Your task to perform on an android device: allow notifications from all sites in the chrome app Image 0: 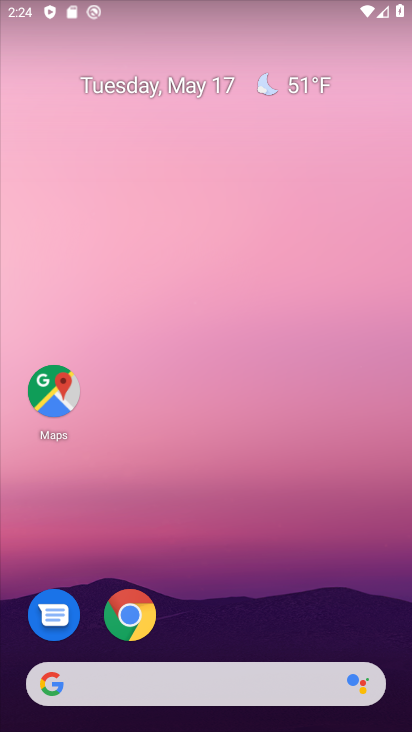
Step 0: click (127, 608)
Your task to perform on an android device: allow notifications from all sites in the chrome app Image 1: 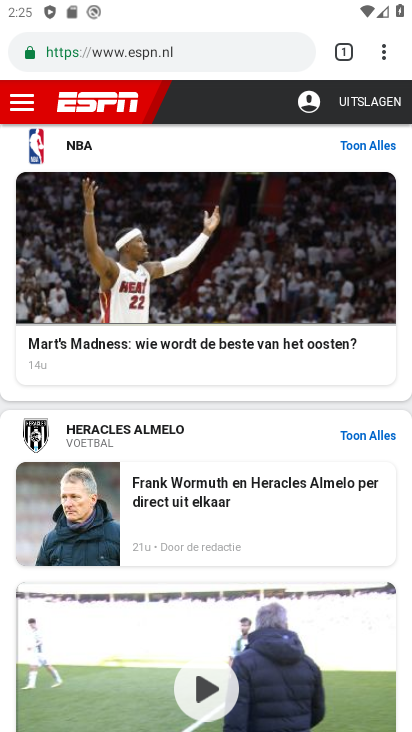
Step 1: click (388, 46)
Your task to perform on an android device: allow notifications from all sites in the chrome app Image 2: 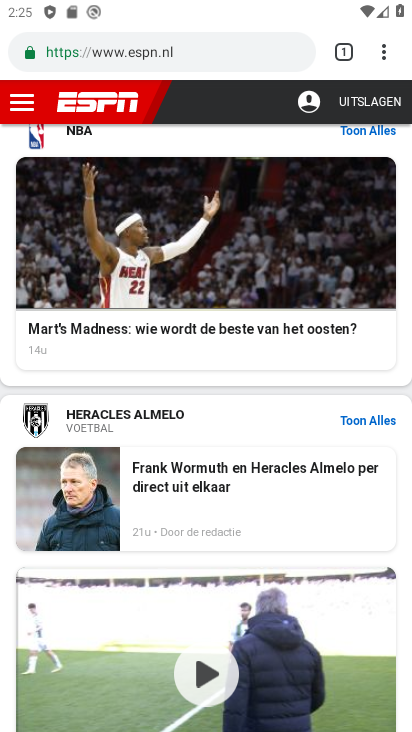
Step 2: click (382, 43)
Your task to perform on an android device: allow notifications from all sites in the chrome app Image 3: 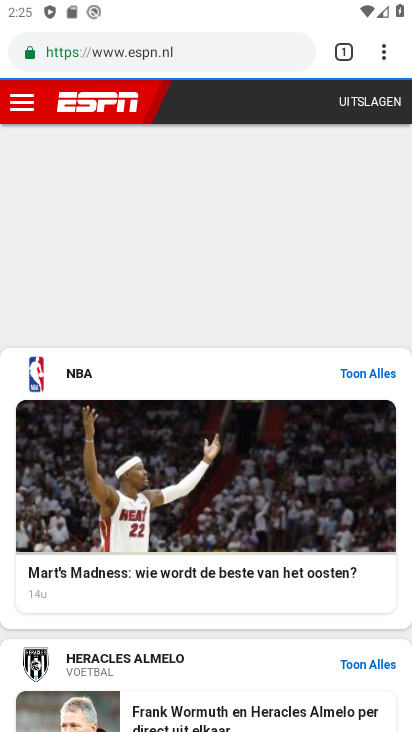
Step 3: click (383, 49)
Your task to perform on an android device: allow notifications from all sites in the chrome app Image 4: 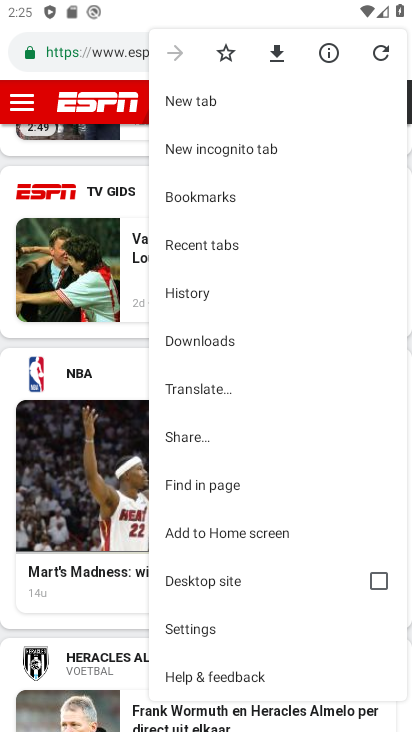
Step 4: click (219, 625)
Your task to perform on an android device: allow notifications from all sites in the chrome app Image 5: 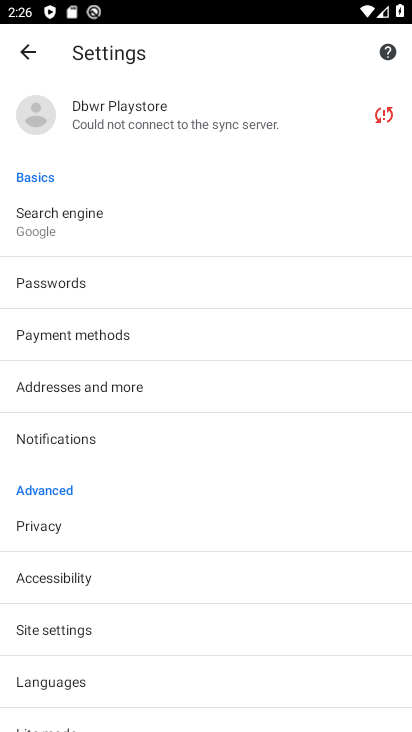
Step 5: click (103, 626)
Your task to perform on an android device: allow notifications from all sites in the chrome app Image 6: 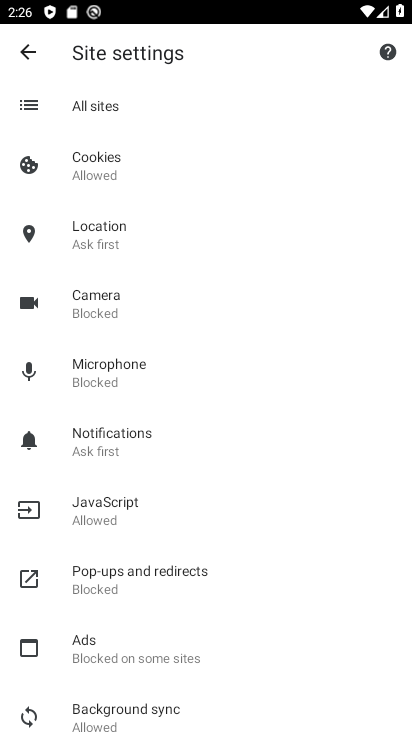
Step 6: click (120, 109)
Your task to perform on an android device: allow notifications from all sites in the chrome app Image 7: 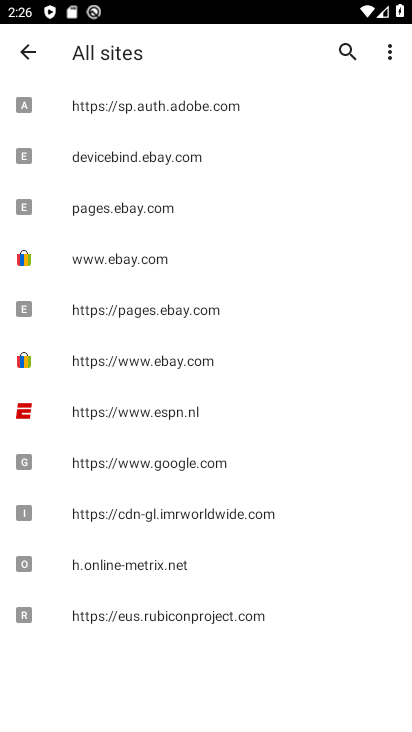
Step 7: click (52, 100)
Your task to perform on an android device: allow notifications from all sites in the chrome app Image 8: 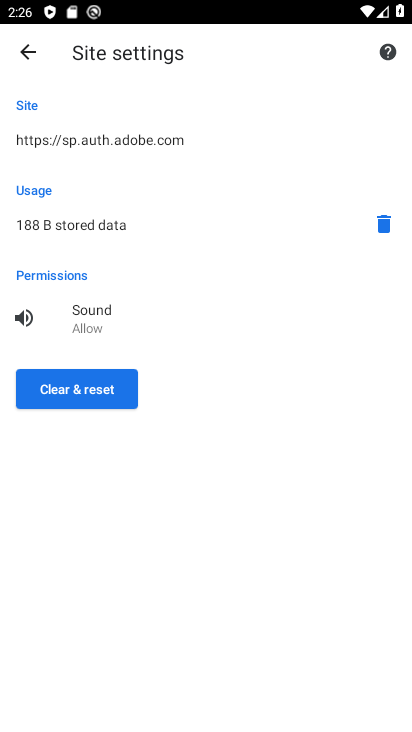
Step 8: click (35, 54)
Your task to perform on an android device: allow notifications from all sites in the chrome app Image 9: 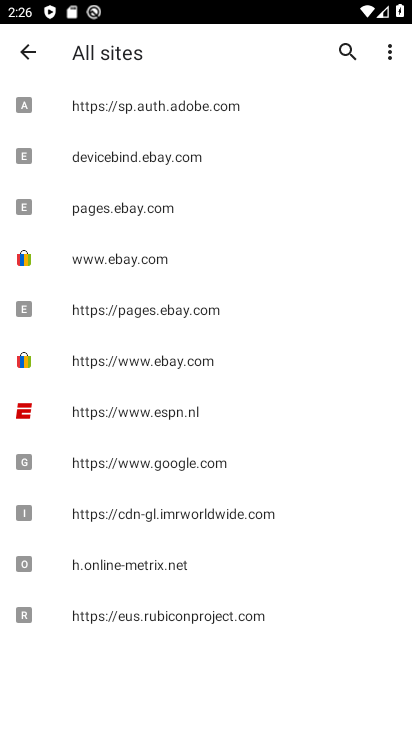
Step 9: click (55, 152)
Your task to perform on an android device: allow notifications from all sites in the chrome app Image 10: 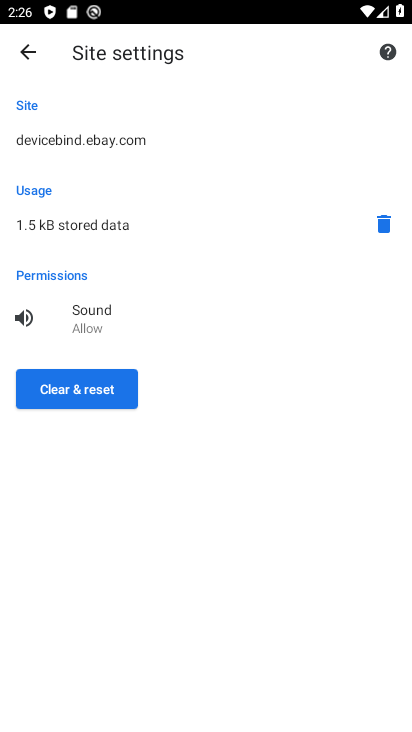
Step 10: click (30, 54)
Your task to perform on an android device: allow notifications from all sites in the chrome app Image 11: 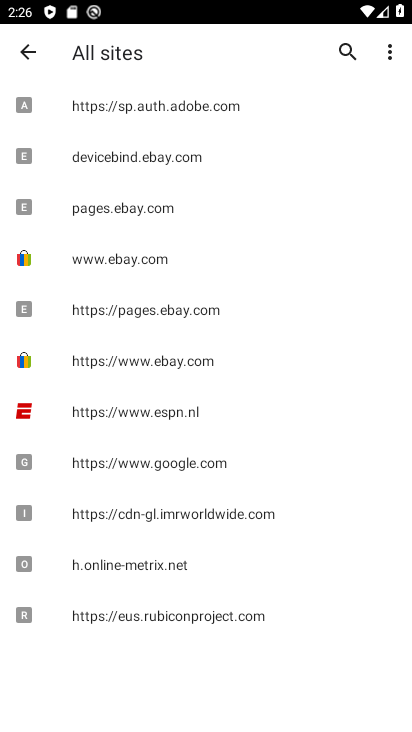
Step 11: click (58, 257)
Your task to perform on an android device: allow notifications from all sites in the chrome app Image 12: 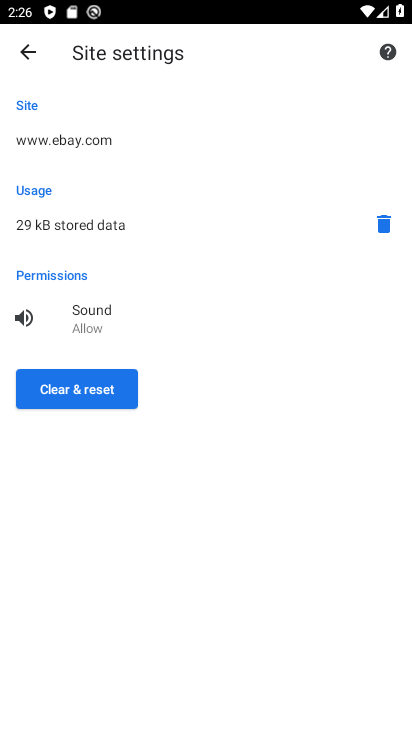
Step 12: click (31, 56)
Your task to perform on an android device: allow notifications from all sites in the chrome app Image 13: 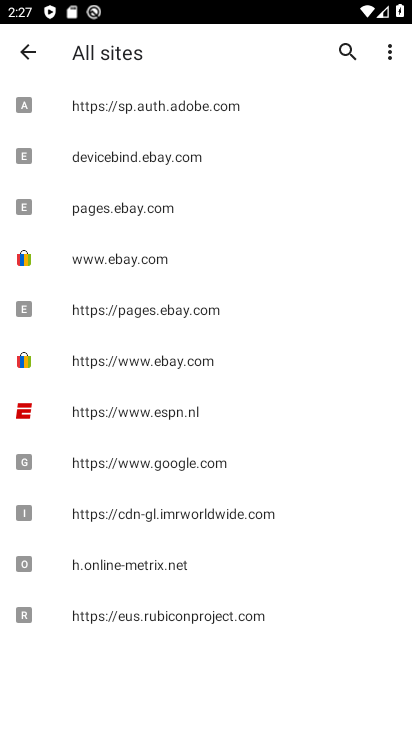
Step 13: click (139, 614)
Your task to perform on an android device: allow notifications from all sites in the chrome app Image 14: 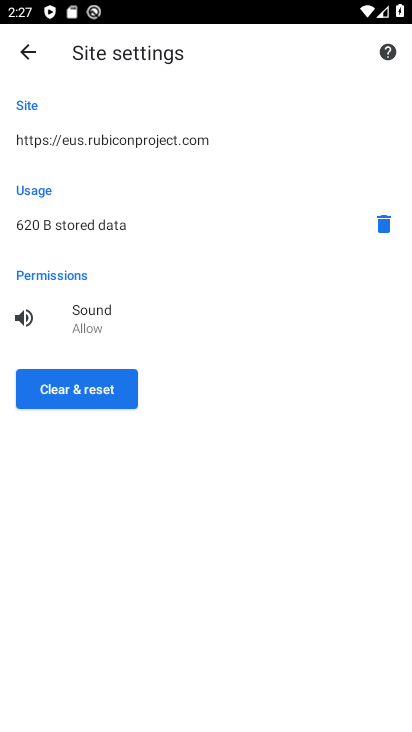
Step 14: click (38, 57)
Your task to perform on an android device: allow notifications from all sites in the chrome app Image 15: 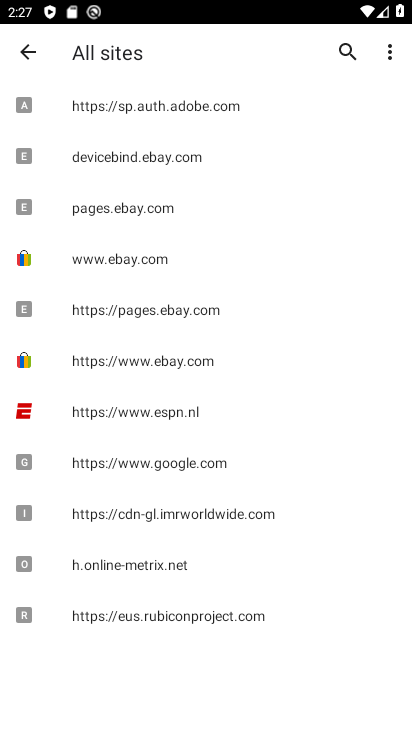
Step 15: task complete